Your task to perform on an android device: turn off improve location accuracy Image 0: 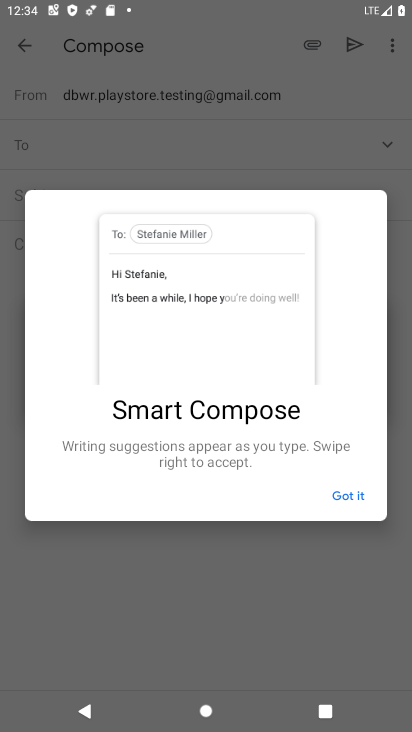
Step 0: press home button
Your task to perform on an android device: turn off improve location accuracy Image 1: 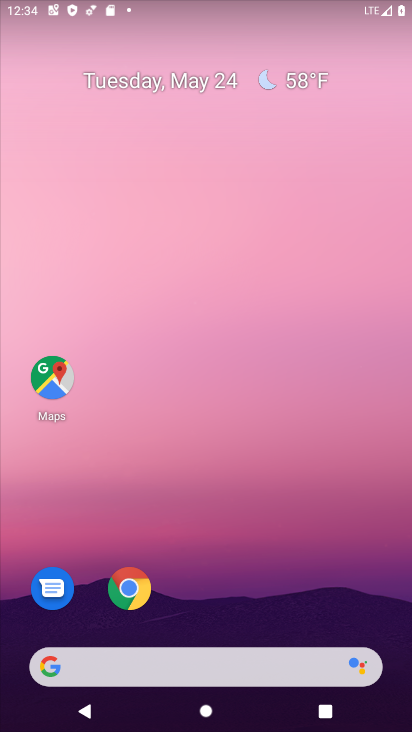
Step 1: drag from (182, 585) to (261, 64)
Your task to perform on an android device: turn off improve location accuracy Image 2: 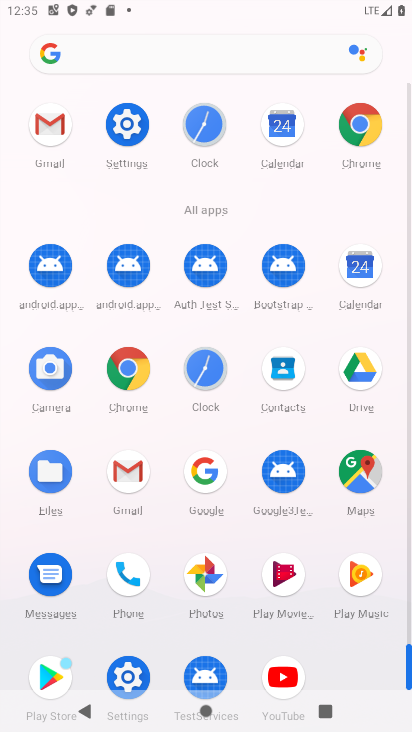
Step 2: click (122, 118)
Your task to perform on an android device: turn off improve location accuracy Image 3: 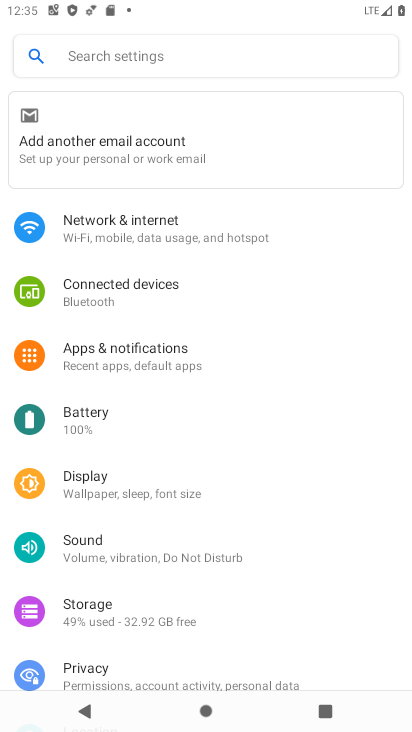
Step 3: drag from (77, 634) to (95, 349)
Your task to perform on an android device: turn off improve location accuracy Image 4: 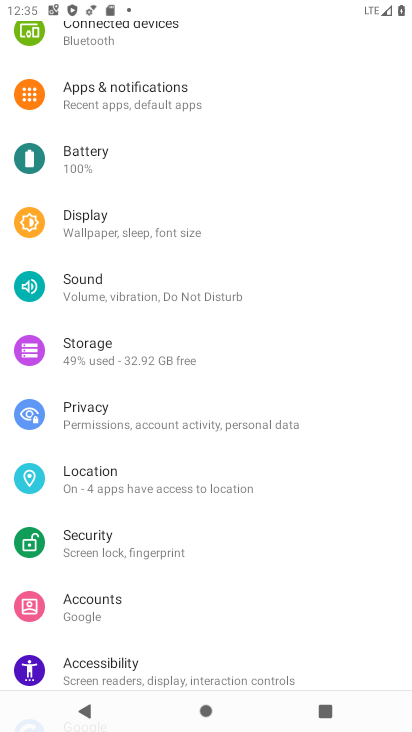
Step 4: click (78, 477)
Your task to perform on an android device: turn off improve location accuracy Image 5: 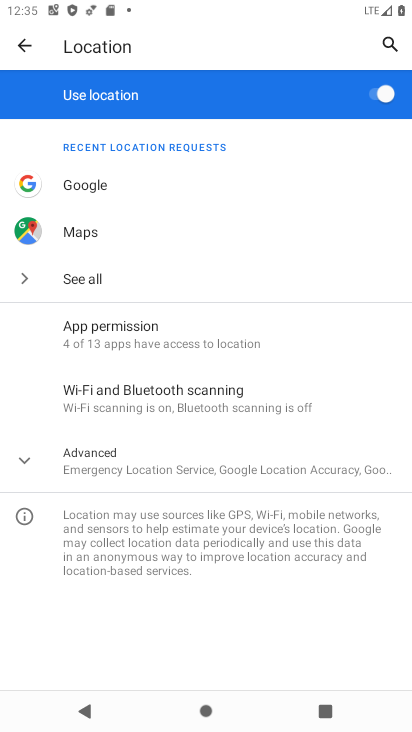
Step 5: click (83, 457)
Your task to perform on an android device: turn off improve location accuracy Image 6: 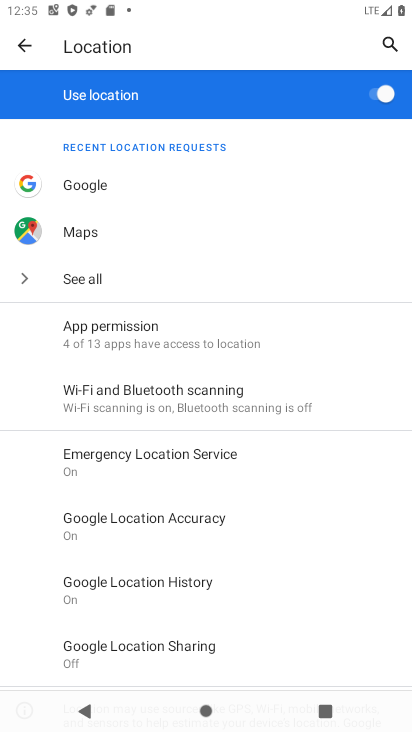
Step 6: click (130, 524)
Your task to perform on an android device: turn off improve location accuracy Image 7: 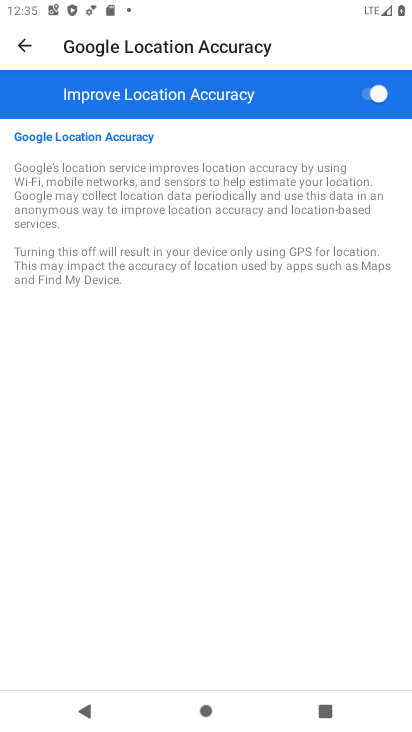
Step 7: click (361, 94)
Your task to perform on an android device: turn off improve location accuracy Image 8: 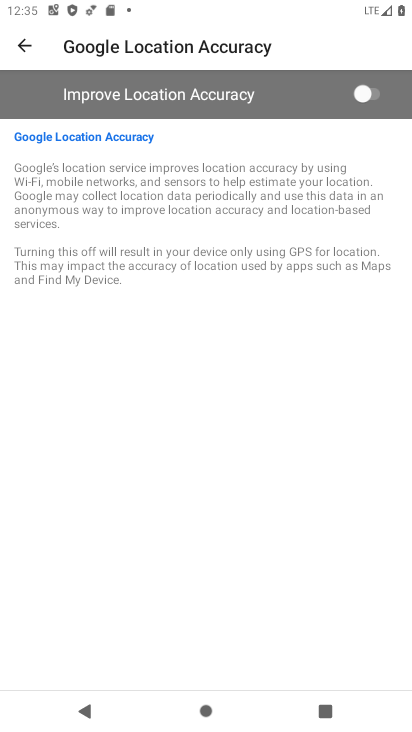
Step 8: task complete